Your task to perform on an android device: Search for sushi restaurants on Maps Image 0: 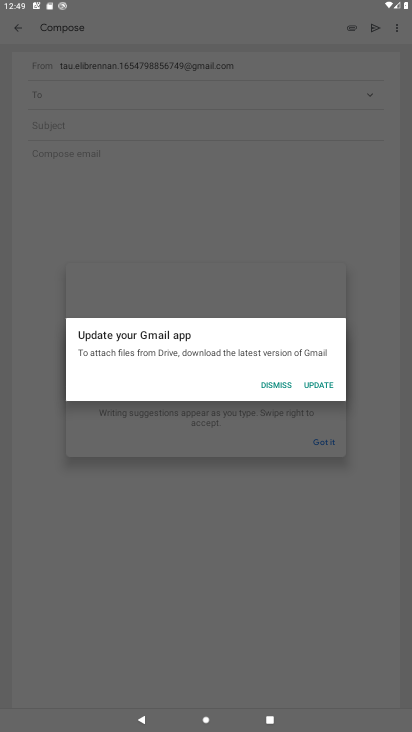
Step 0: press home button
Your task to perform on an android device: Search for sushi restaurants on Maps Image 1: 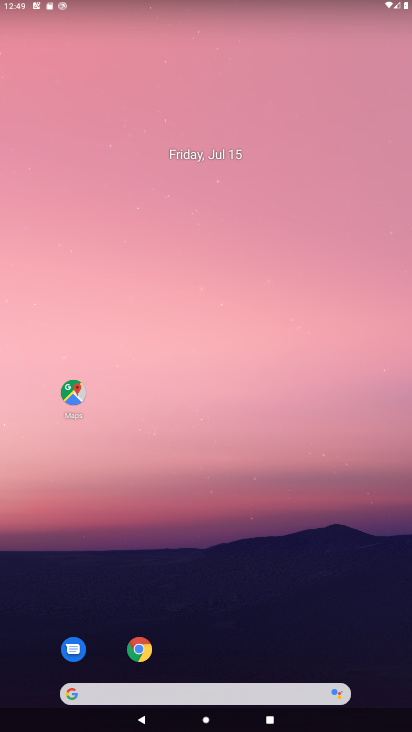
Step 1: drag from (253, 622) to (279, 169)
Your task to perform on an android device: Search for sushi restaurants on Maps Image 2: 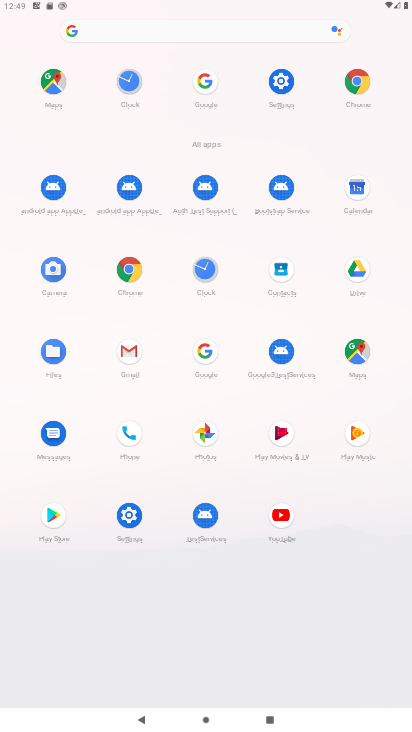
Step 2: click (355, 341)
Your task to perform on an android device: Search for sushi restaurants on Maps Image 3: 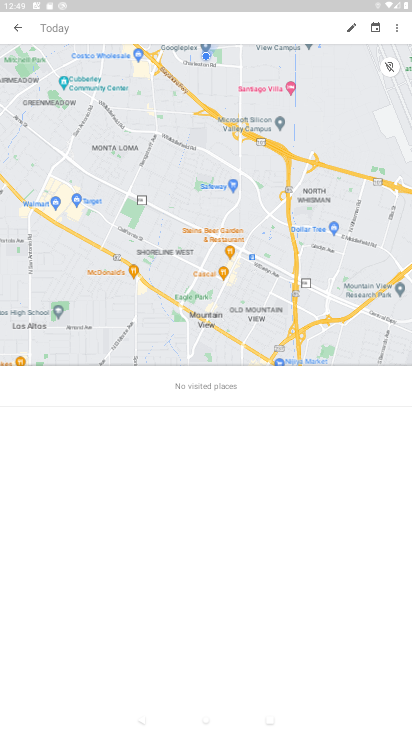
Step 3: click (20, 27)
Your task to perform on an android device: Search for sushi restaurants on Maps Image 4: 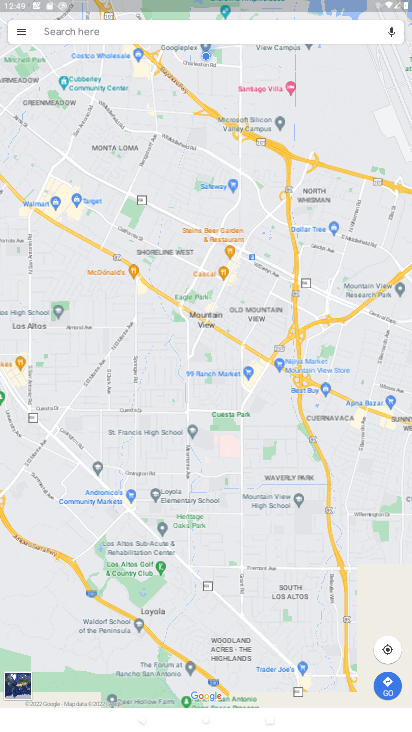
Step 4: click (136, 33)
Your task to perform on an android device: Search for sushi restaurants on Maps Image 5: 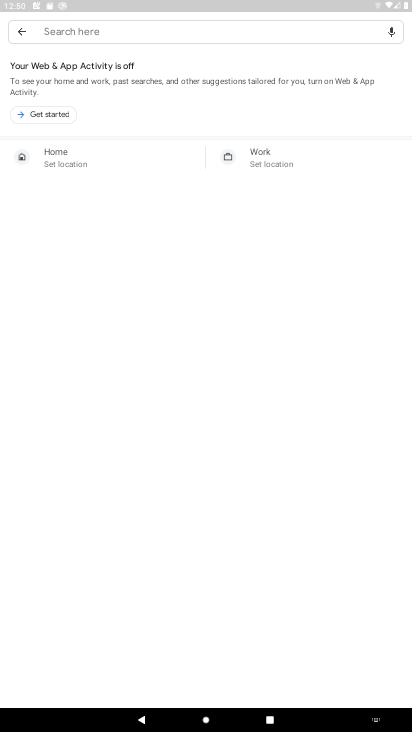
Step 5: click (170, 22)
Your task to perform on an android device: Search for sushi restaurants on Maps Image 6: 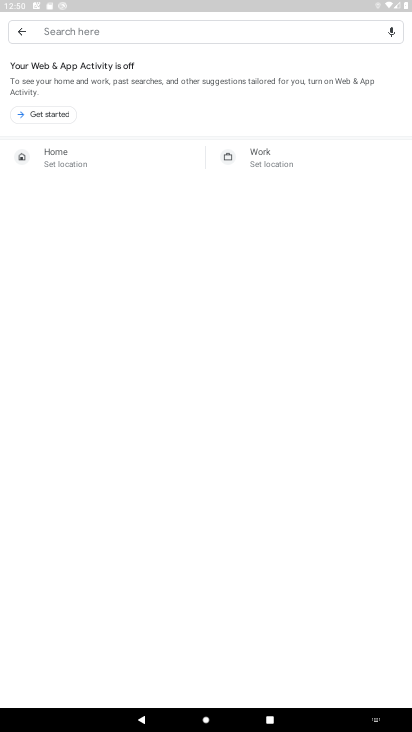
Step 6: type " sushi restaurant "
Your task to perform on an android device: Search for sushi restaurants on Maps Image 7: 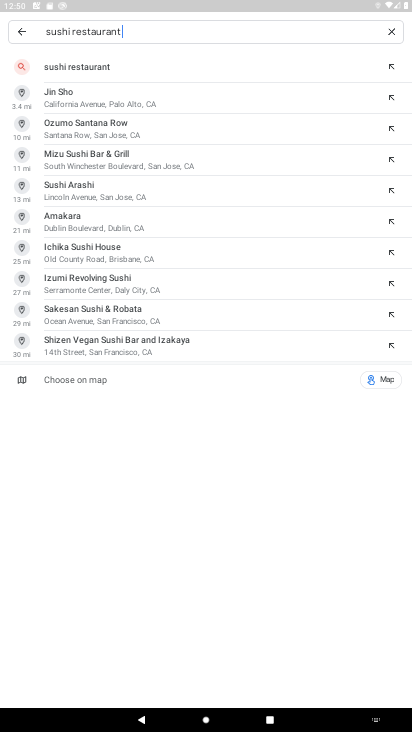
Step 7: click (133, 88)
Your task to perform on an android device: Search for sushi restaurants on Maps Image 8: 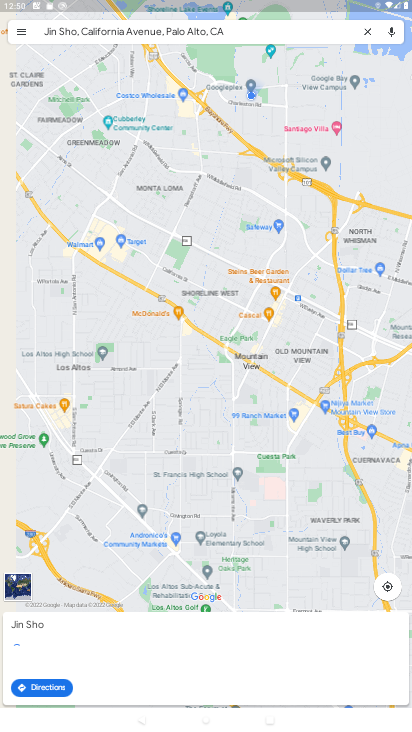
Step 8: press back button
Your task to perform on an android device: Search for sushi restaurants on Maps Image 9: 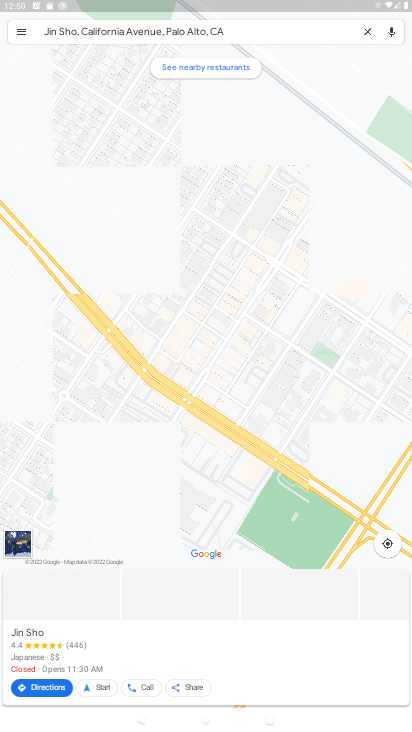
Step 9: click (369, 29)
Your task to perform on an android device: Search for sushi restaurants on Maps Image 10: 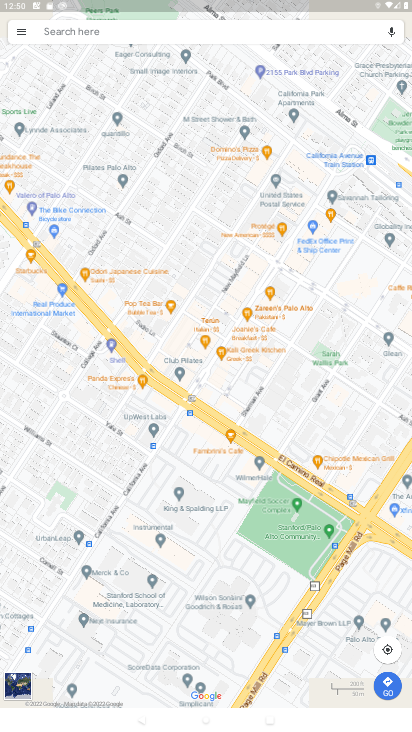
Step 10: click (243, 35)
Your task to perform on an android device: Search for sushi restaurants on Maps Image 11: 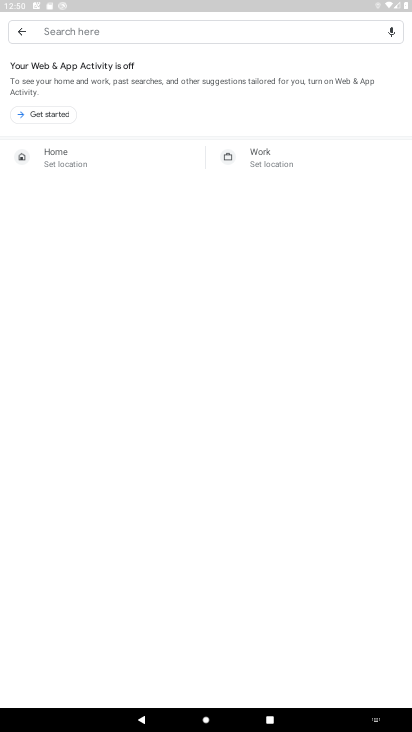
Step 11: type " sushi restaurant "
Your task to perform on an android device: Search for sushi restaurants on Maps Image 12: 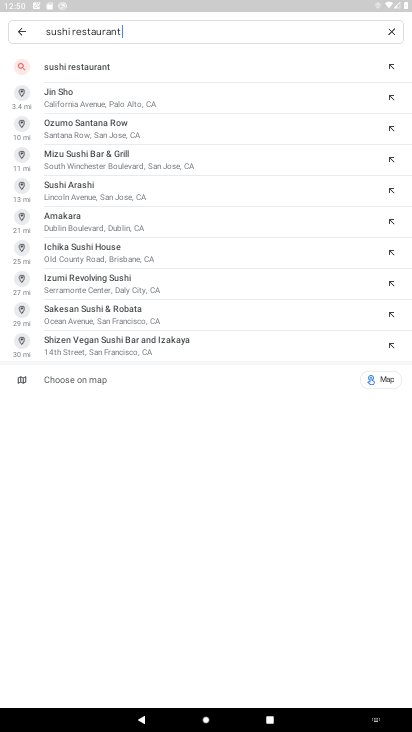
Step 12: click (75, 58)
Your task to perform on an android device: Search for sushi restaurants on Maps Image 13: 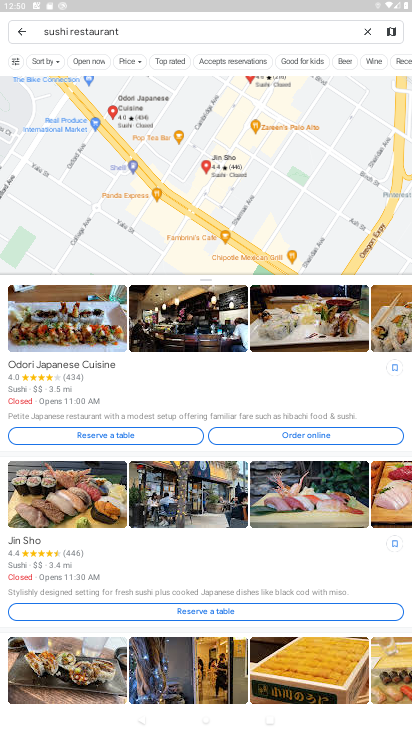
Step 13: task complete